Your task to perform on an android device: add a label to a message in the gmail app Image 0: 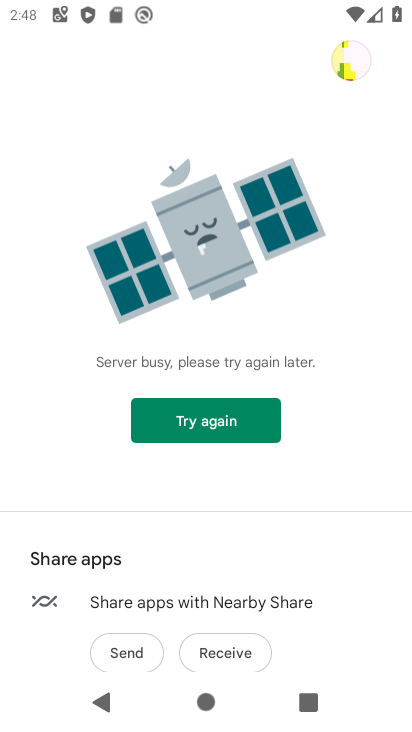
Step 0: drag from (150, 544) to (299, 231)
Your task to perform on an android device: add a label to a message in the gmail app Image 1: 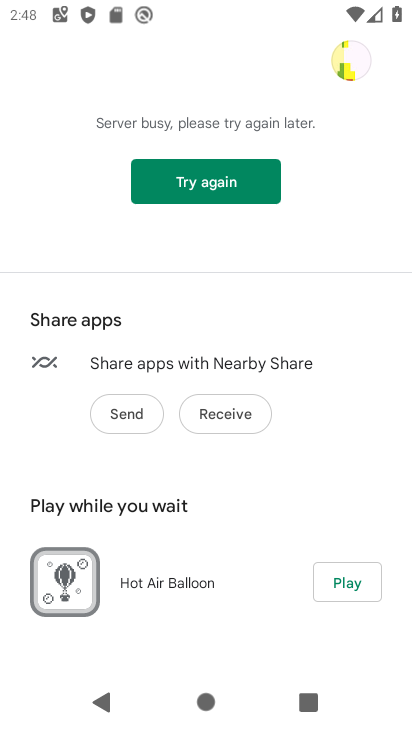
Step 1: press home button
Your task to perform on an android device: add a label to a message in the gmail app Image 2: 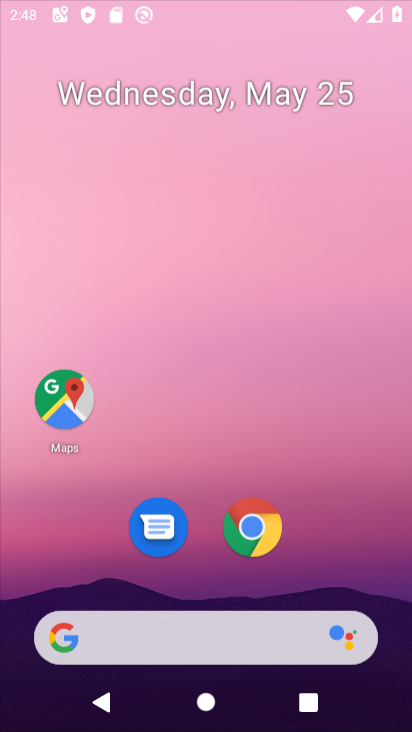
Step 2: drag from (233, 564) to (318, 24)
Your task to perform on an android device: add a label to a message in the gmail app Image 3: 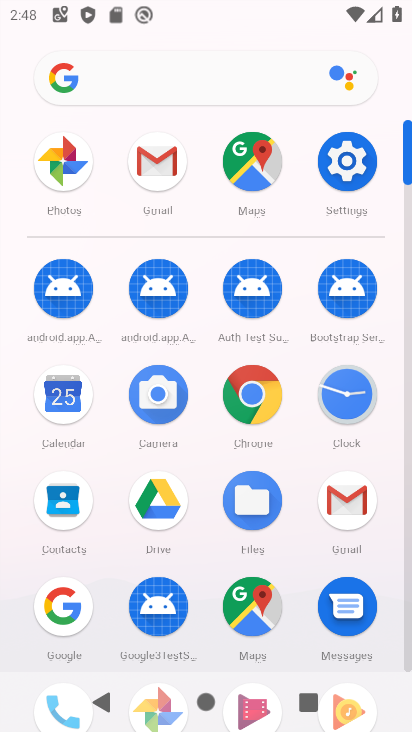
Step 3: click (352, 506)
Your task to perform on an android device: add a label to a message in the gmail app Image 4: 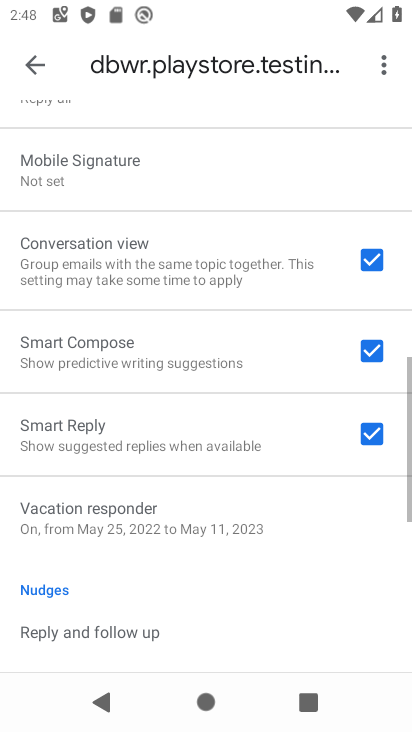
Step 4: drag from (172, 208) to (246, 654)
Your task to perform on an android device: add a label to a message in the gmail app Image 5: 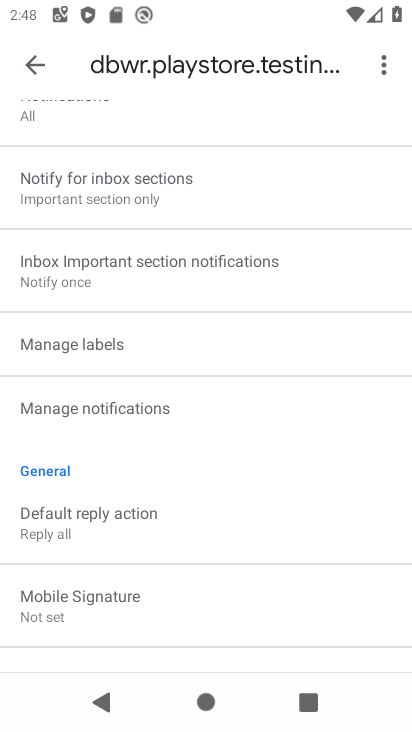
Step 5: drag from (211, 197) to (256, 617)
Your task to perform on an android device: add a label to a message in the gmail app Image 6: 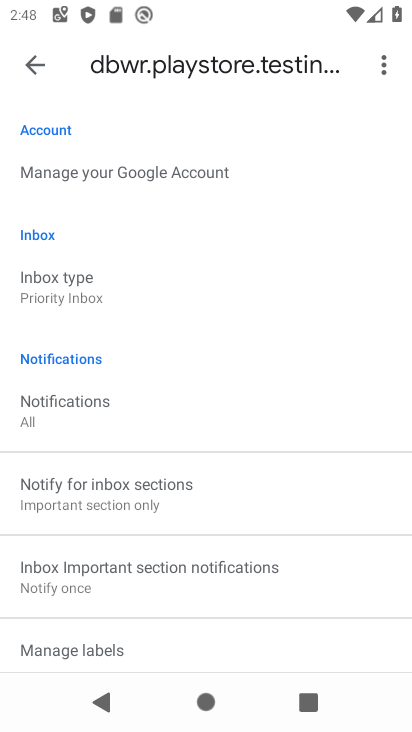
Step 6: drag from (159, 448) to (227, 240)
Your task to perform on an android device: add a label to a message in the gmail app Image 7: 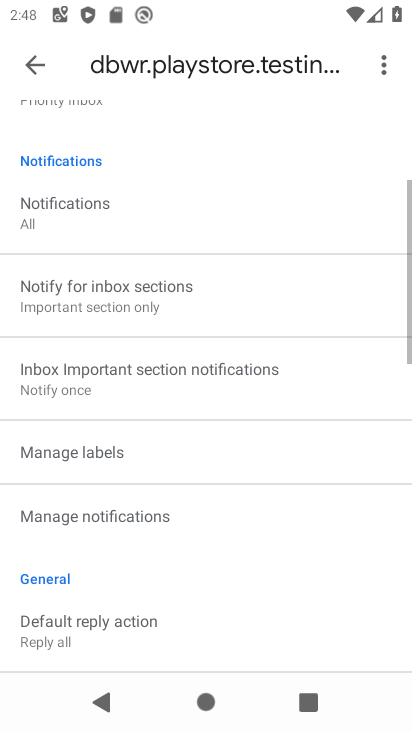
Step 7: drag from (226, 245) to (170, 726)
Your task to perform on an android device: add a label to a message in the gmail app Image 8: 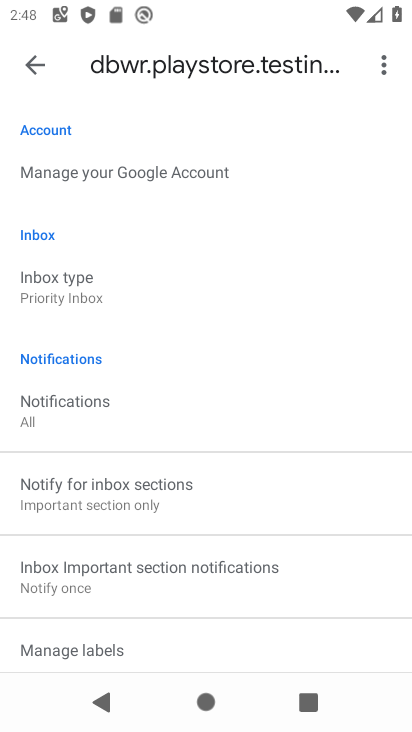
Step 8: drag from (161, 283) to (232, 665)
Your task to perform on an android device: add a label to a message in the gmail app Image 9: 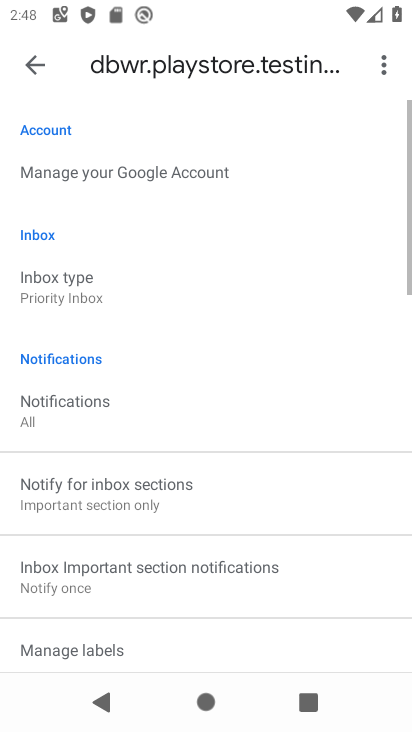
Step 9: drag from (202, 460) to (208, 729)
Your task to perform on an android device: add a label to a message in the gmail app Image 10: 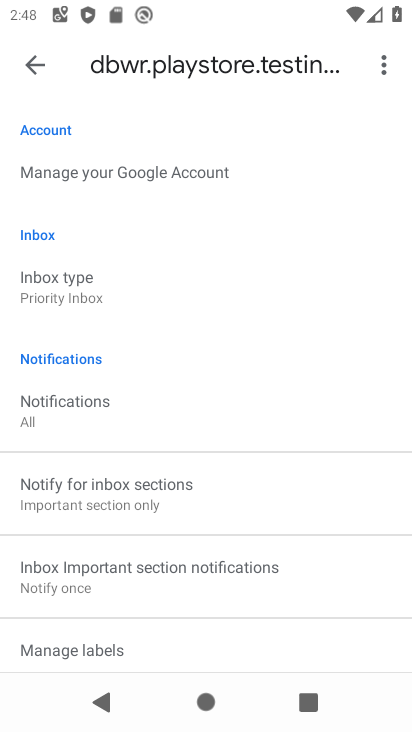
Step 10: drag from (177, 545) to (228, 301)
Your task to perform on an android device: add a label to a message in the gmail app Image 11: 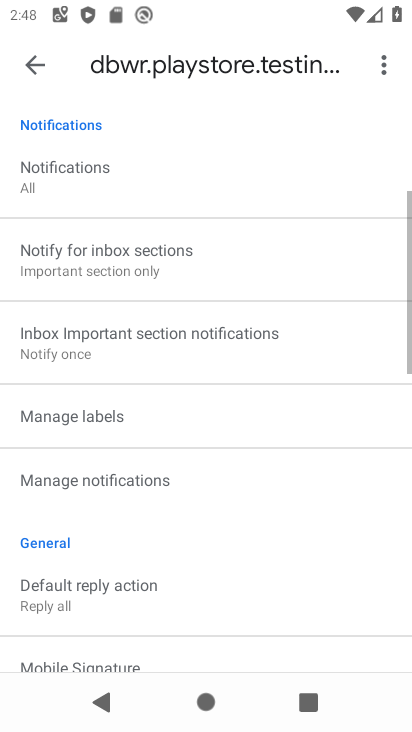
Step 11: drag from (231, 302) to (206, 730)
Your task to perform on an android device: add a label to a message in the gmail app Image 12: 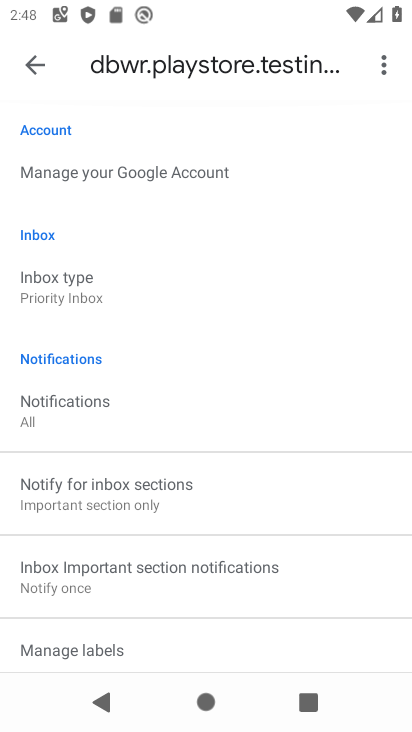
Step 12: drag from (162, 613) to (291, 224)
Your task to perform on an android device: add a label to a message in the gmail app Image 13: 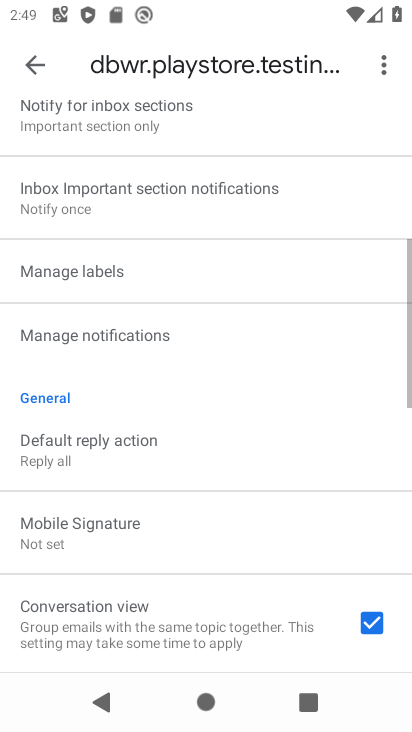
Step 13: drag from (285, 252) to (177, 710)
Your task to perform on an android device: add a label to a message in the gmail app Image 14: 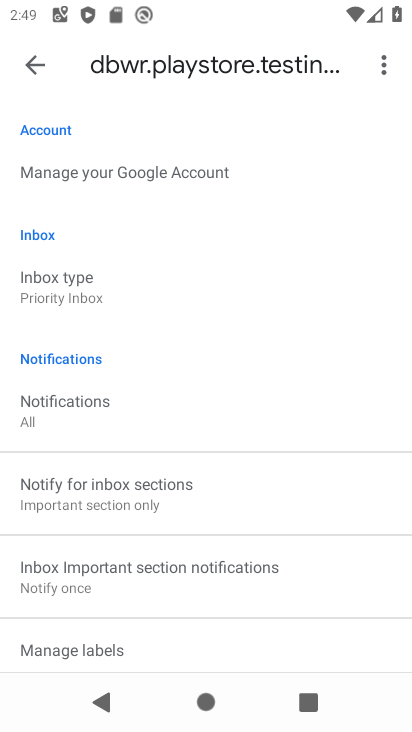
Step 14: drag from (192, 580) to (279, 247)
Your task to perform on an android device: add a label to a message in the gmail app Image 15: 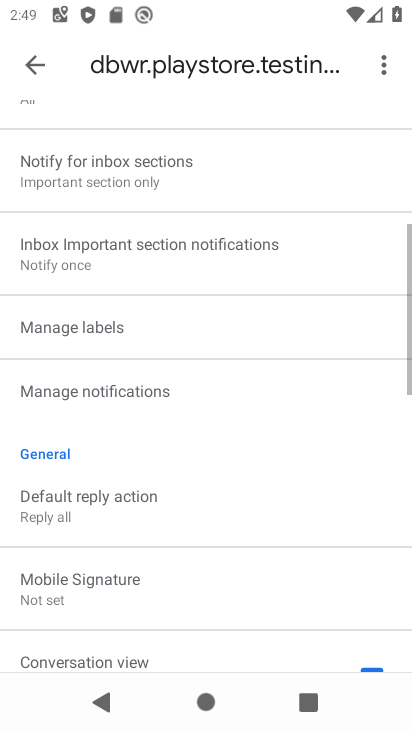
Step 15: drag from (306, 200) to (210, 727)
Your task to perform on an android device: add a label to a message in the gmail app Image 16: 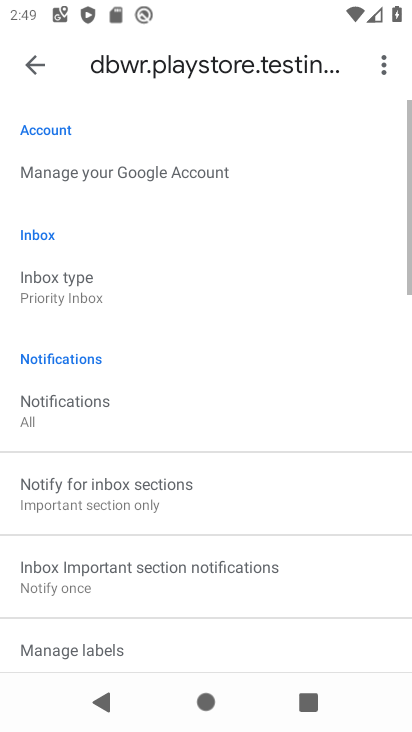
Step 16: drag from (184, 508) to (218, 309)
Your task to perform on an android device: add a label to a message in the gmail app Image 17: 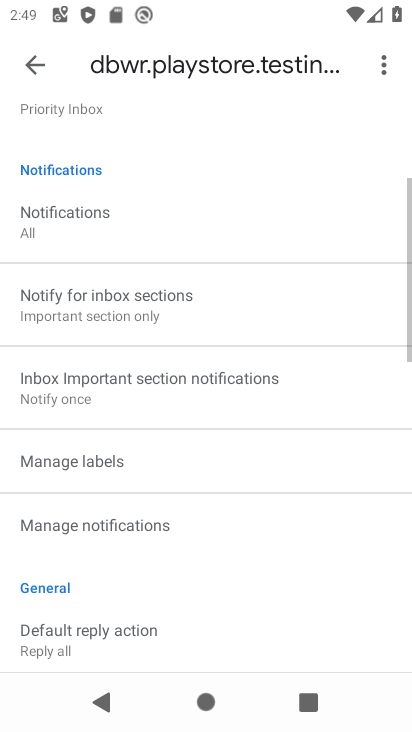
Step 17: drag from (205, 318) to (136, 729)
Your task to perform on an android device: add a label to a message in the gmail app Image 18: 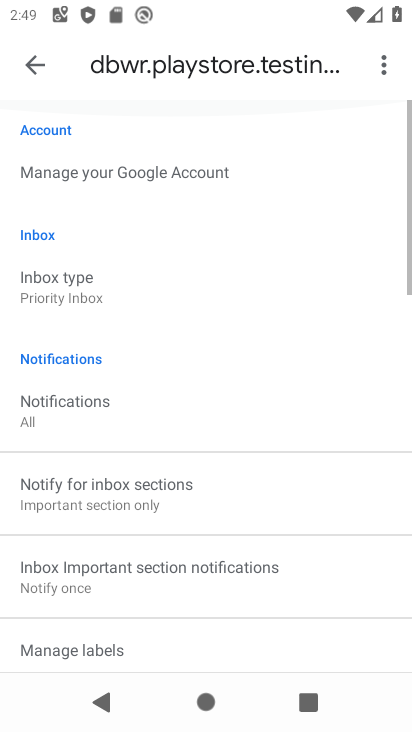
Step 18: drag from (163, 656) to (253, 294)
Your task to perform on an android device: add a label to a message in the gmail app Image 19: 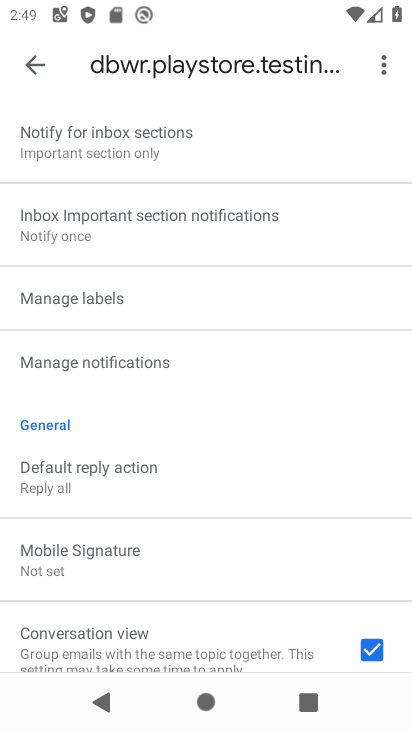
Step 19: drag from (247, 598) to (272, 136)
Your task to perform on an android device: add a label to a message in the gmail app Image 20: 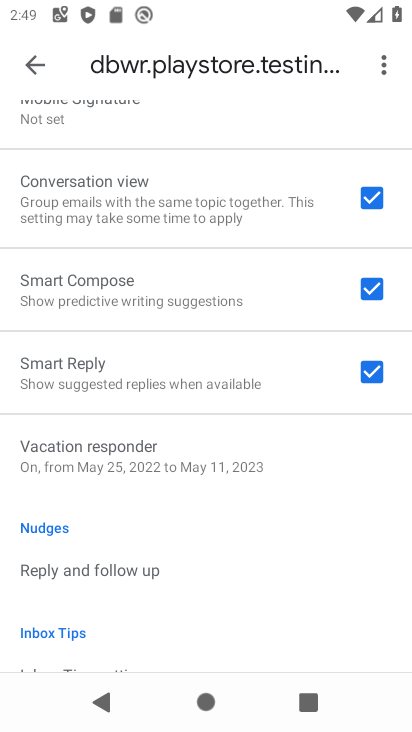
Step 20: drag from (306, 293) to (342, 729)
Your task to perform on an android device: add a label to a message in the gmail app Image 21: 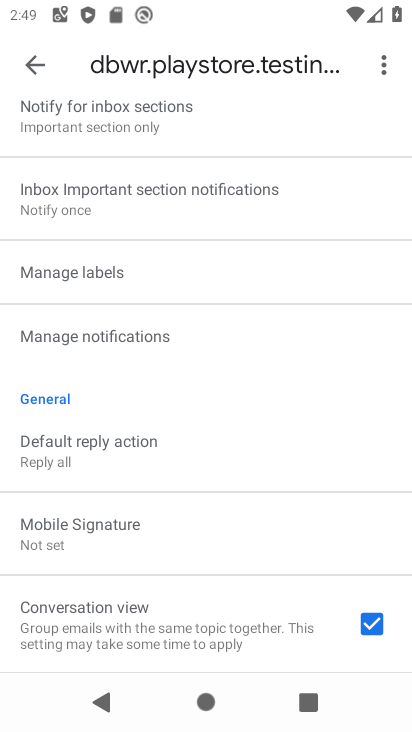
Step 21: click (52, 68)
Your task to perform on an android device: add a label to a message in the gmail app Image 22: 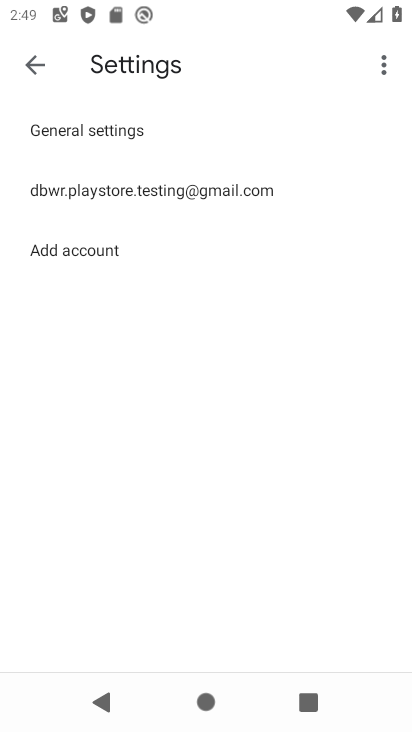
Step 22: click (38, 65)
Your task to perform on an android device: add a label to a message in the gmail app Image 23: 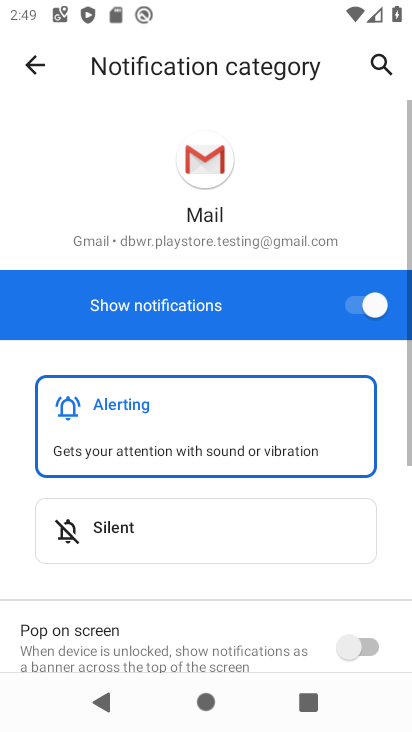
Step 23: click (38, 66)
Your task to perform on an android device: add a label to a message in the gmail app Image 24: 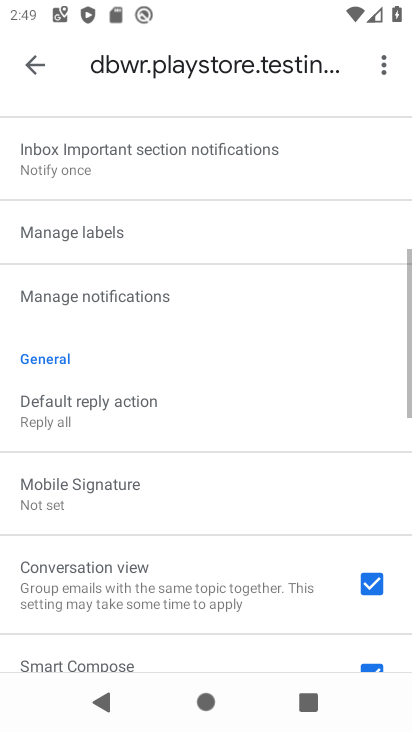
Step 24: click (43, 72)
Your task to perform on an android device: add a label to a message in the gmail app Image 25: 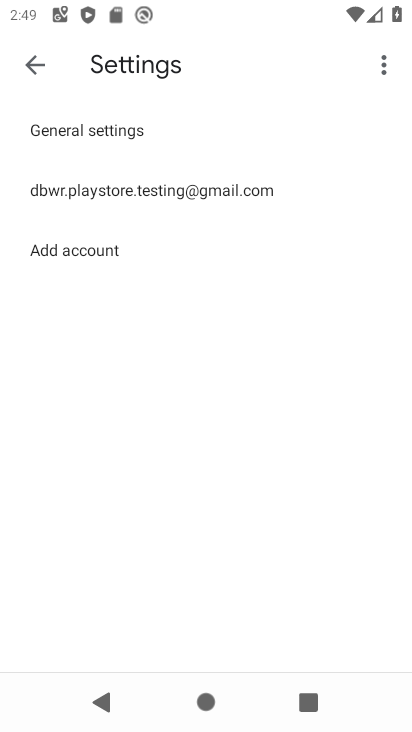
Step 25: click (34, 59)
Your task to perform on an android device: add a label to a message in the gmail app Image 26: 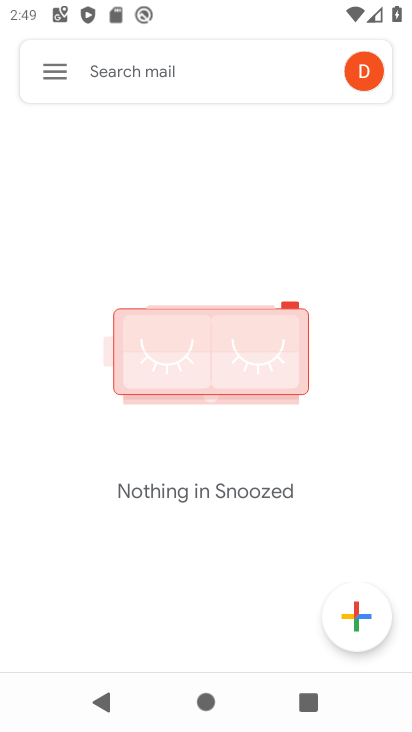
Step 26: click (67, 69)
Your task to perform on an android device: add a label to a message in the gmail app Image 27: 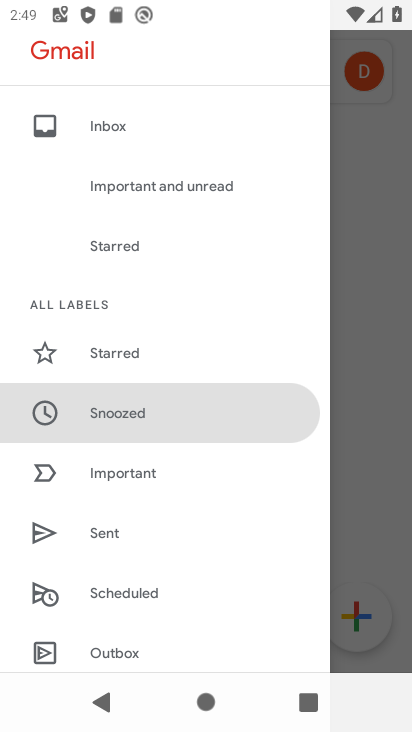
Step 27: task complete